Your task to perform on an android device: check battery use Image 0: 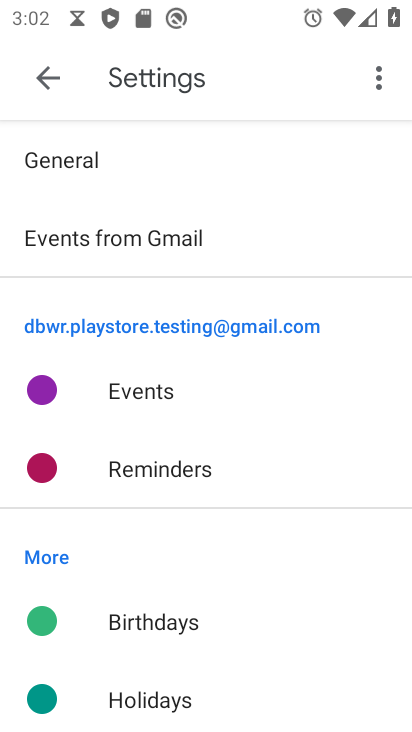
Step 0: press home button
Your task to perform on an android device: check battery use Image 1: 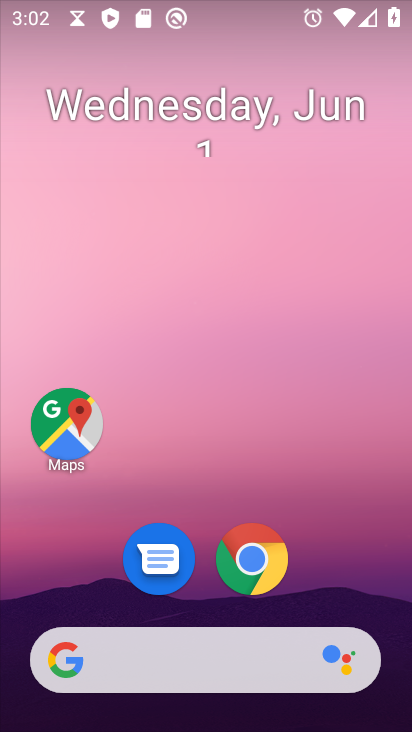
Step 1: drag from (326, 590) to (331, 49)
Your task to perform on an android device: check battery use Image 2: 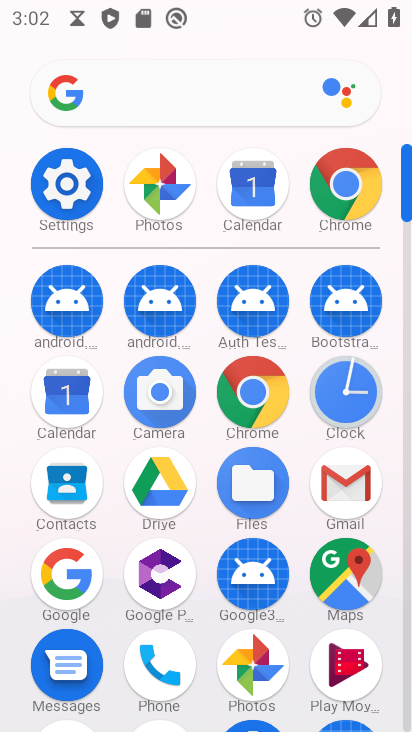
Step 2: click (59, 190)
Your task to perform on an android device: check battery use Image 3: 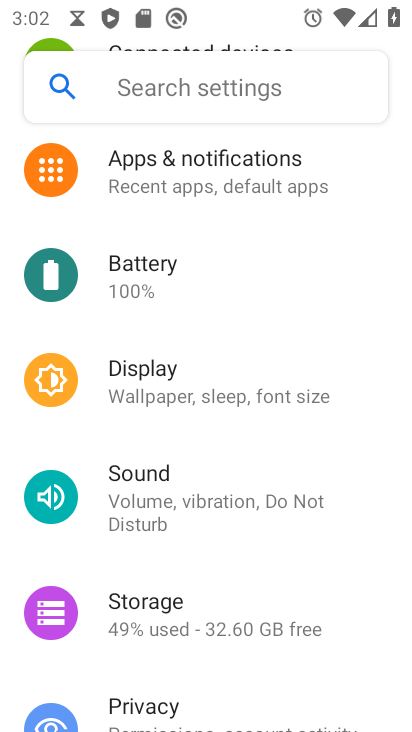
Step 3: click (176, 296)
Your task to perform on an android device: check battery use Image 4: 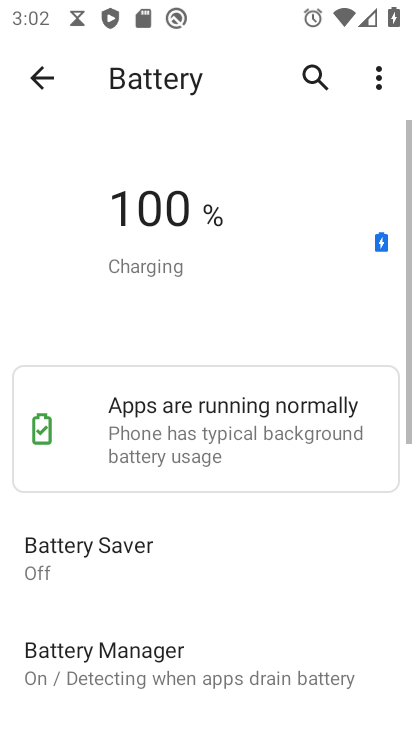
Step 4: click (372, 74)
Your task to perform on an android device: check battery use Image 5: 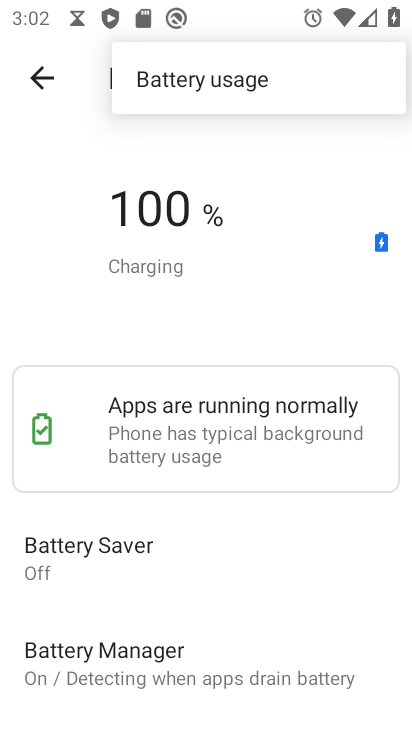
Step 5: click (192, 85)
Your task to perform on an android device: check battery use Image 6: 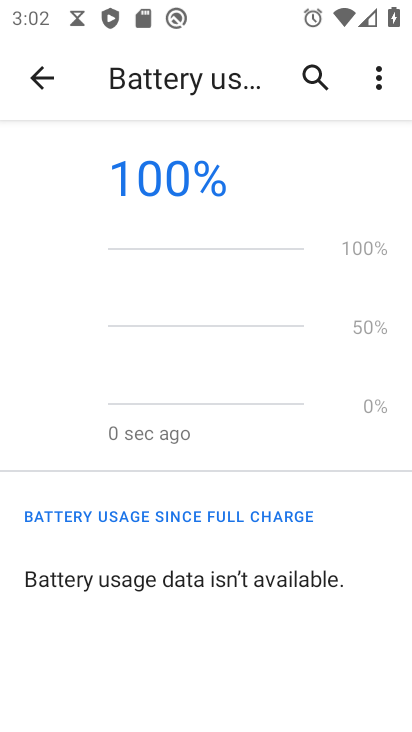
Step 6: task complete